Your task to perform on an android device: delete the emails in spam in the gmail app Image 0: 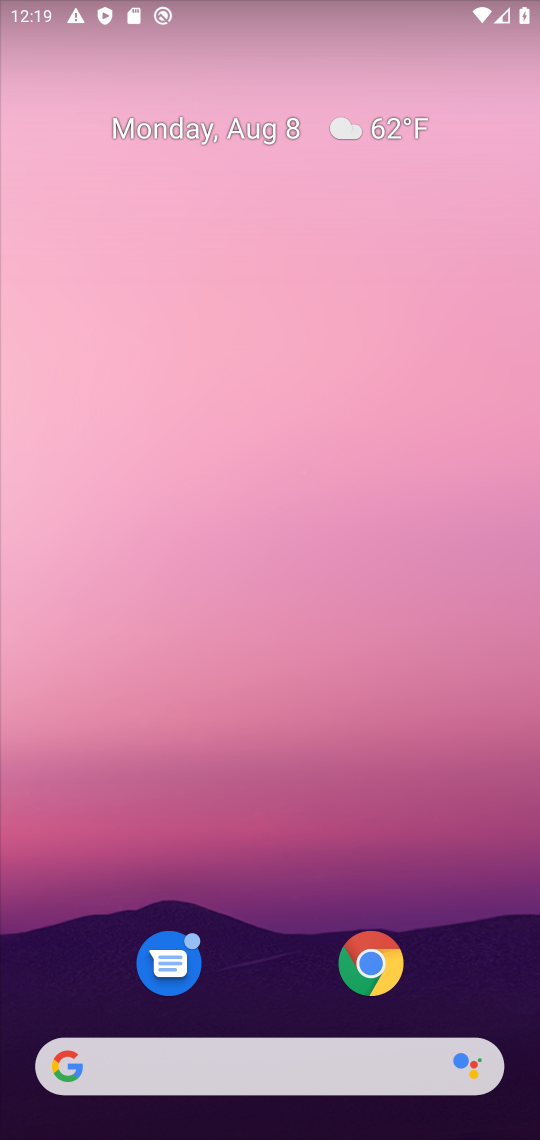
Step 0: drag from (456, 981) to (339, 95)
Your task to perform on an android device: delete the emails in spam in the gmail app Image 1: 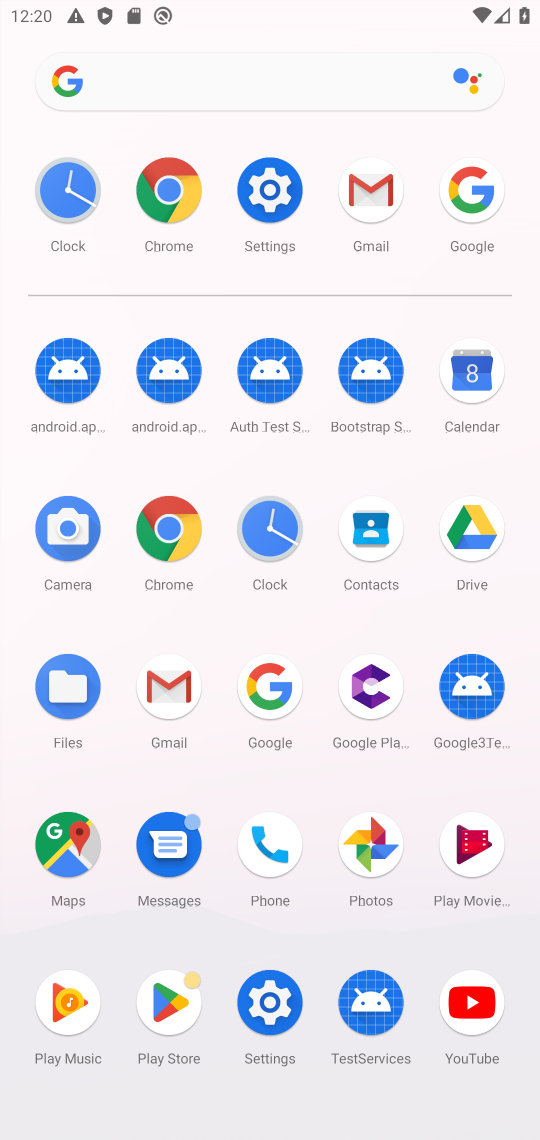
Step 1: click (183, 680)
Your task to perform on an android device: delete the emails in spam in the gmail app Image 2: 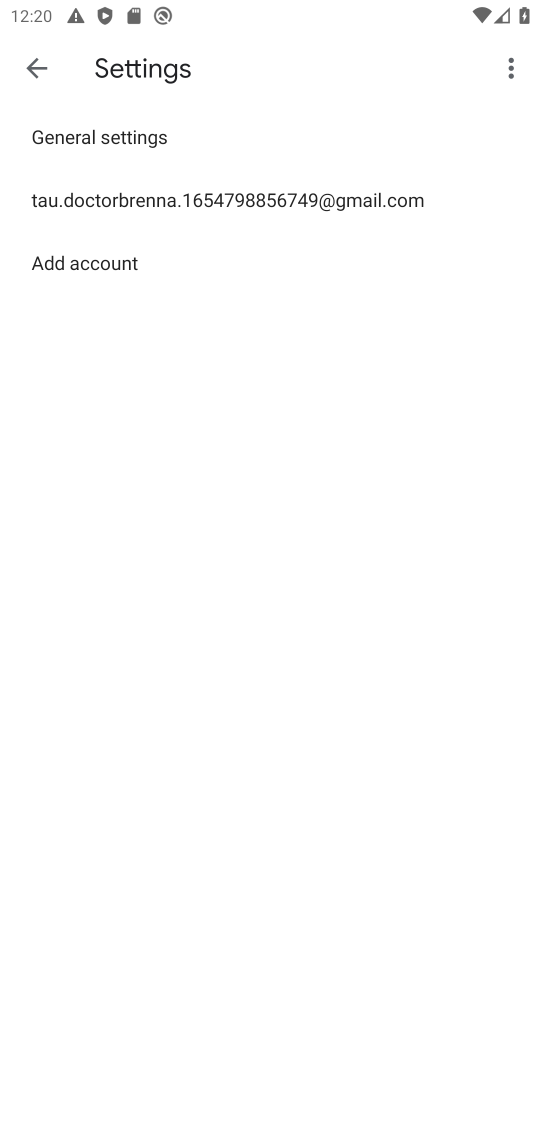
Step 2: task complete